Your task to perform on an android device: Open calendar and show me the third week of next month Image 0: 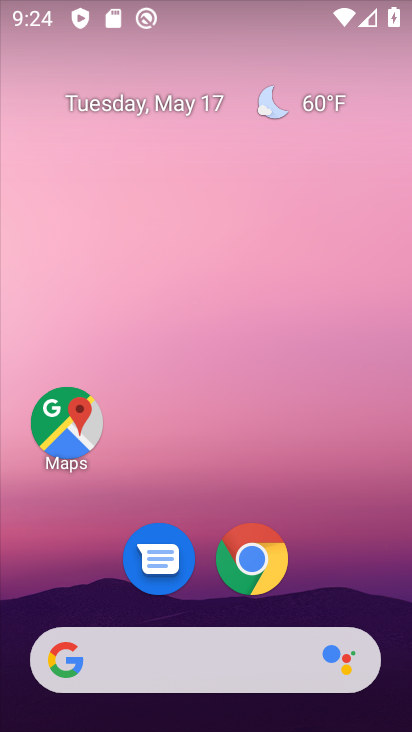
Step 0: drag from (354, 536) to (404, 104)
Your task to perform on an android device: Open calendar and show me the third week of next month Image 1: 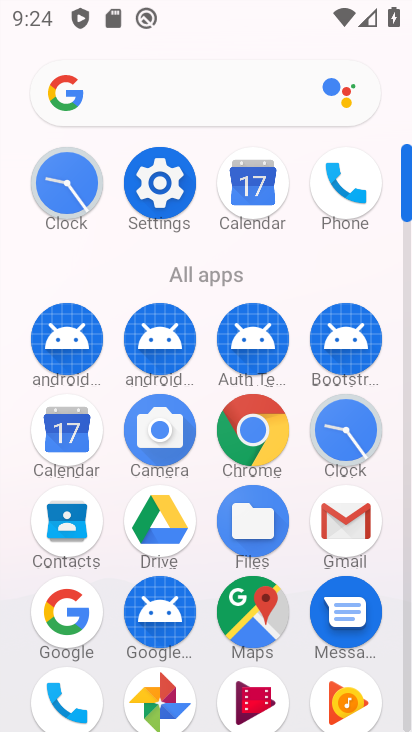
Step 1: click (74, 441)
Your task to perform on an android device: Open calendar and show me the third week of next month Image 2: 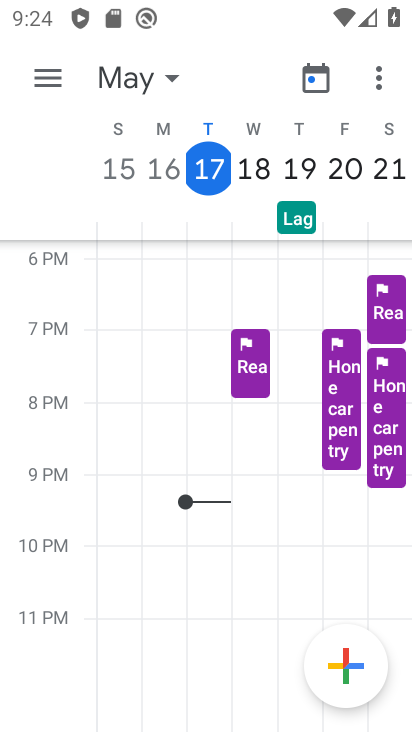
Step 2: click (143, 79)
Your task to perform on an android device: Open calendar and show me the third week of next month Image 3: 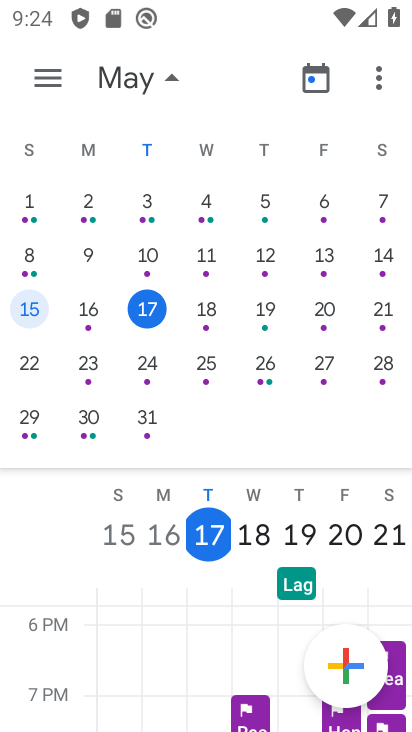
Step 3: drag from (382, 286) to (52, 274)
Your task to perform on an android device: Open calendar and show me the third week of next month Image 4: 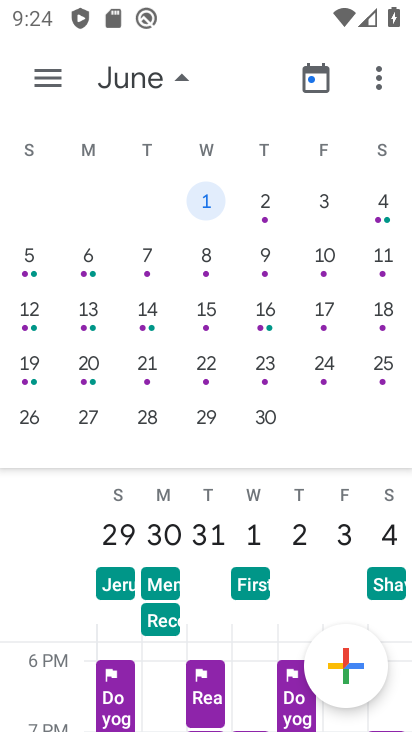
Step 4: click (37, 359)
Your task to perform on an android device: Open calendar and show me the third week of next month Image 5: 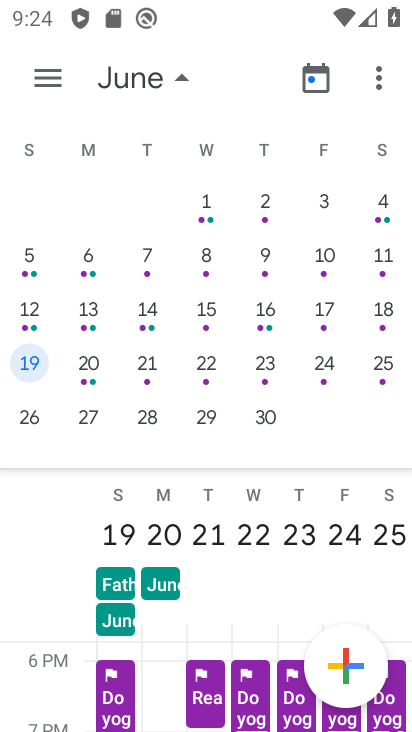
Step 5: task complete